Your task to perform on an android device: Show me the alarms in the clock app Image 0: 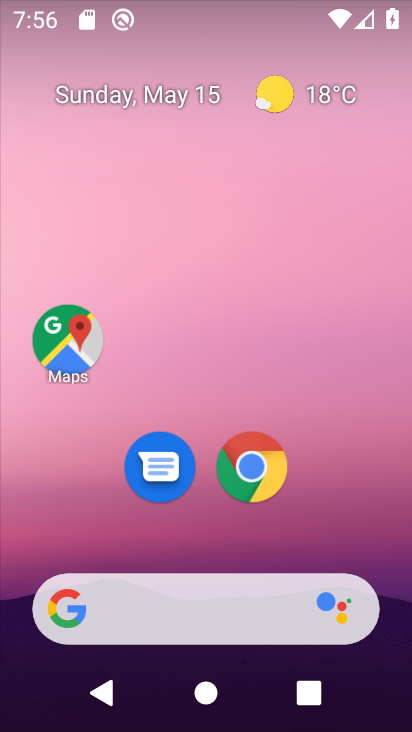
Step 0: drag from (157, 549) to (158, 9)
Your task to perform on an android device: Show me the alarms in the clock app Image 1: 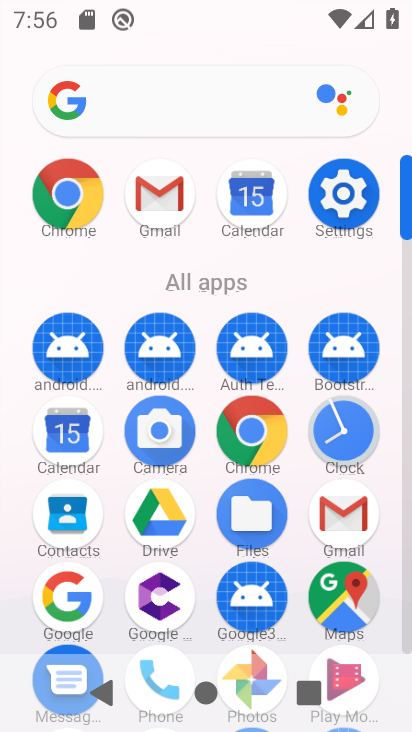
Step 1: click (346, 433)
Your task to perform on an android device: Show me the alarms in the clock app Image 2: 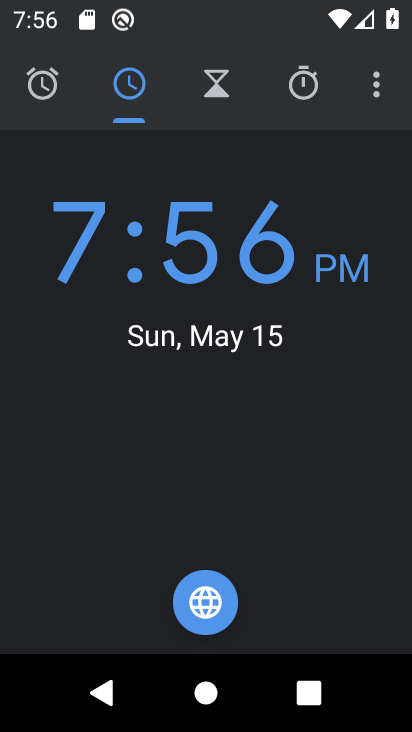
Step 2: click (34, 88)
Your task to perform on an android device: Show me the alarms in the clock app Image 3: 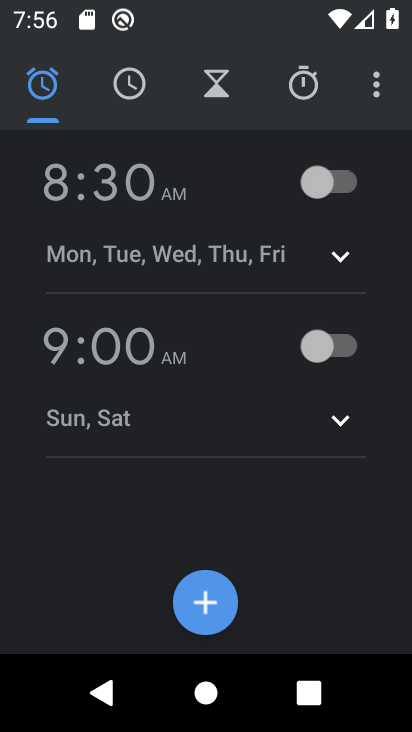
Step 3: task complete